Your task to perform on an android device: Open Yahoo.com Image 0: 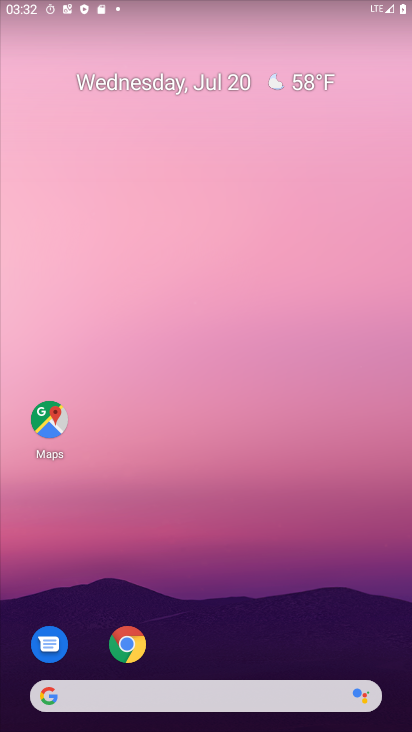
Step 0: click (120, 693)
Your task to perform on an android device: Open Yahoo.com Image 1: 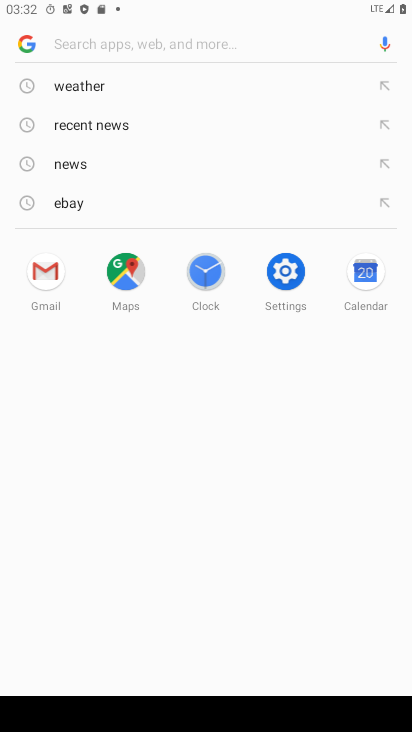
Step 1: type "Yahoo.com"
Your task to perform on an android device: Open Yahoo.com Image 2: 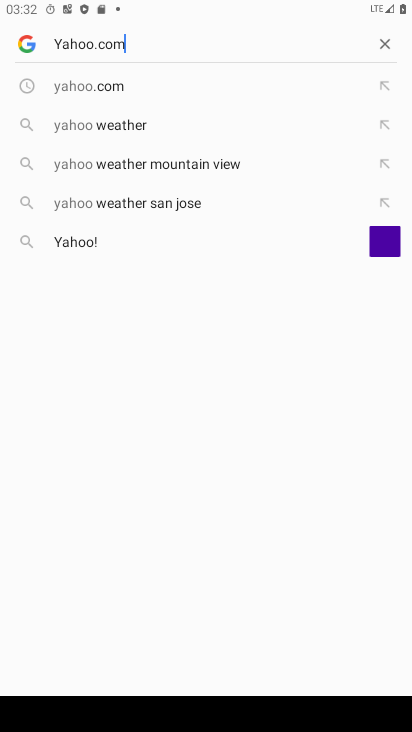
Step 2: type ""
Your task to perform on an android device: Open Yahoo.com Image 3: 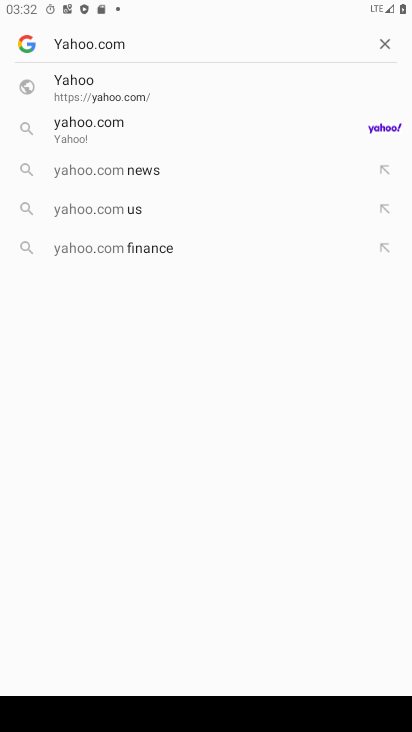
Step 3: click (64, 77)
Your task to perform on an android device: Open Yahoo.com Image 4: 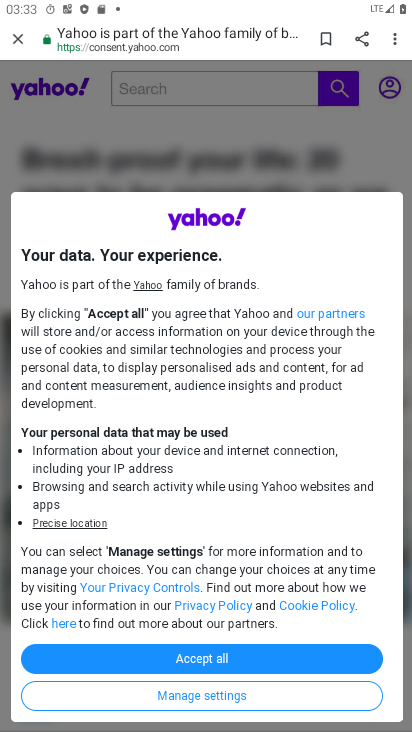
Step 4: task complete